Your task to perform on an android device: turn off sleep mode Image 0: 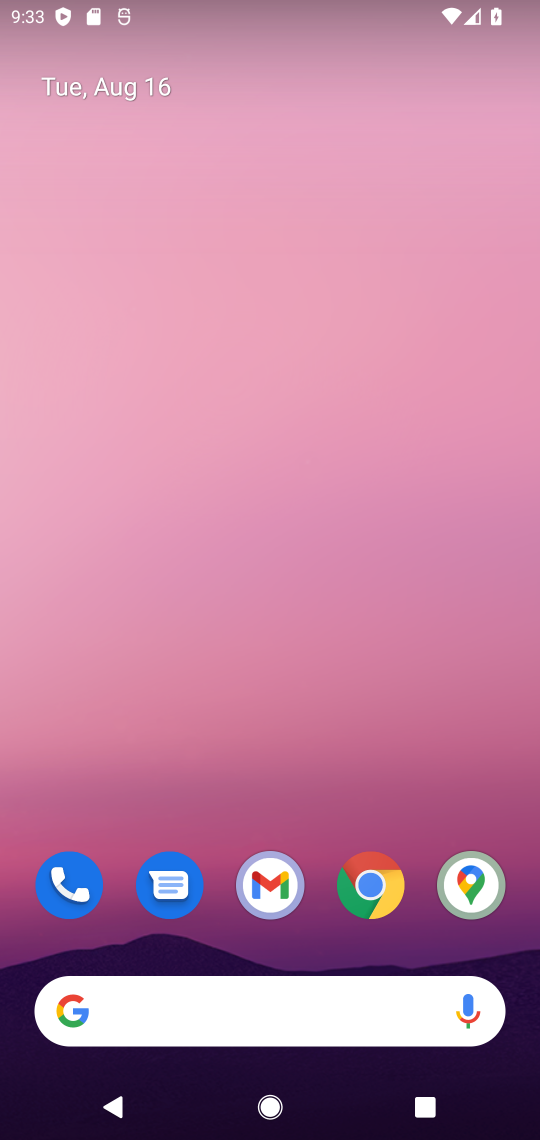
Step 0: drag from (204, 33) to (63, 725)
Your task to perform on an android device: turn off sleep mode Image 1: 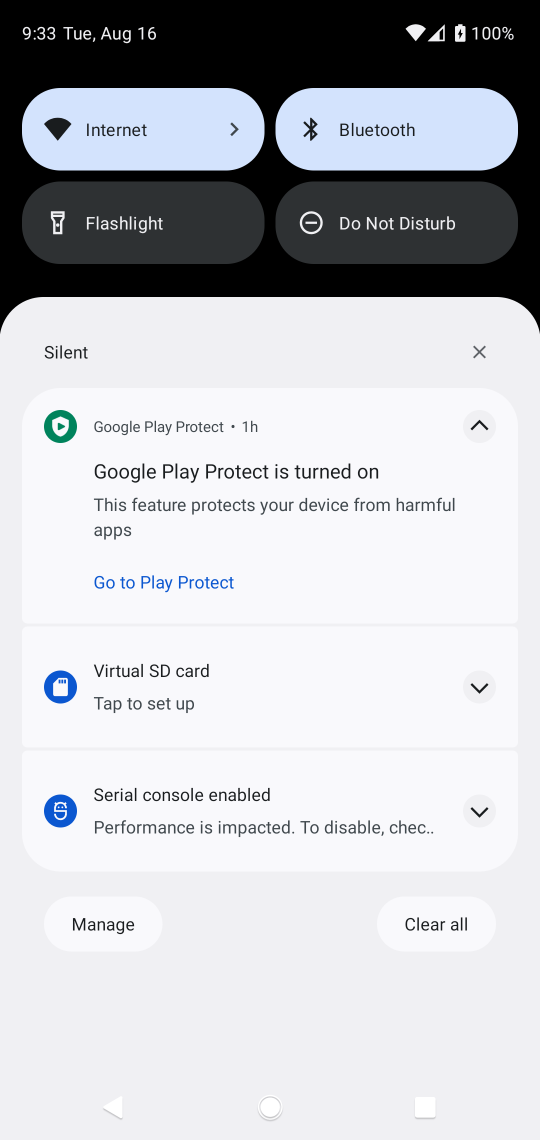
Step 1: click (246, 957)
Your task to perform on an android device: turn off sleep mode Image 2: 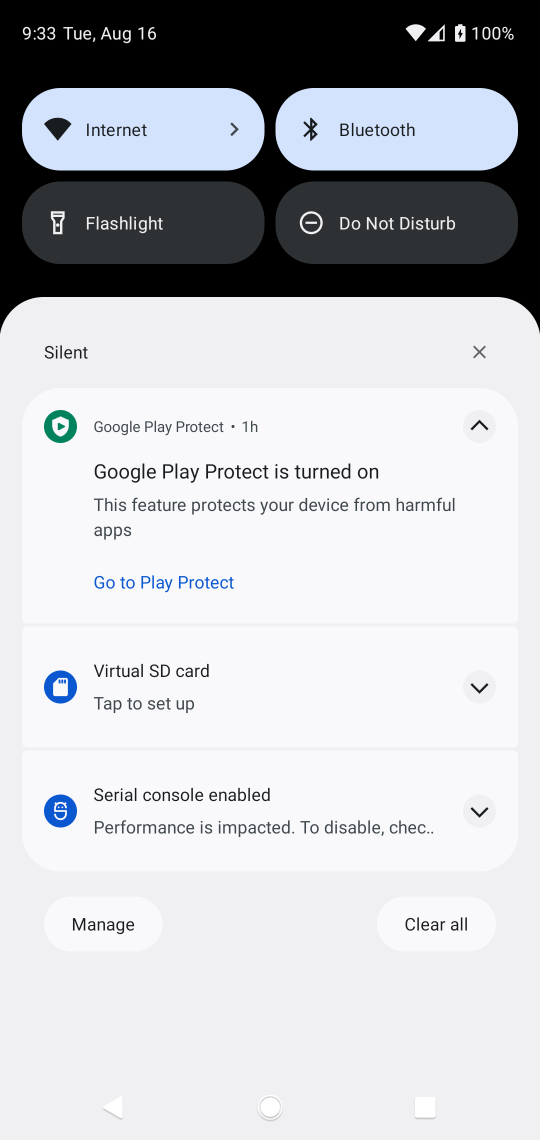
Step 2: task complete